Your task to perform on an android device: Open Reddit.com Image 0: 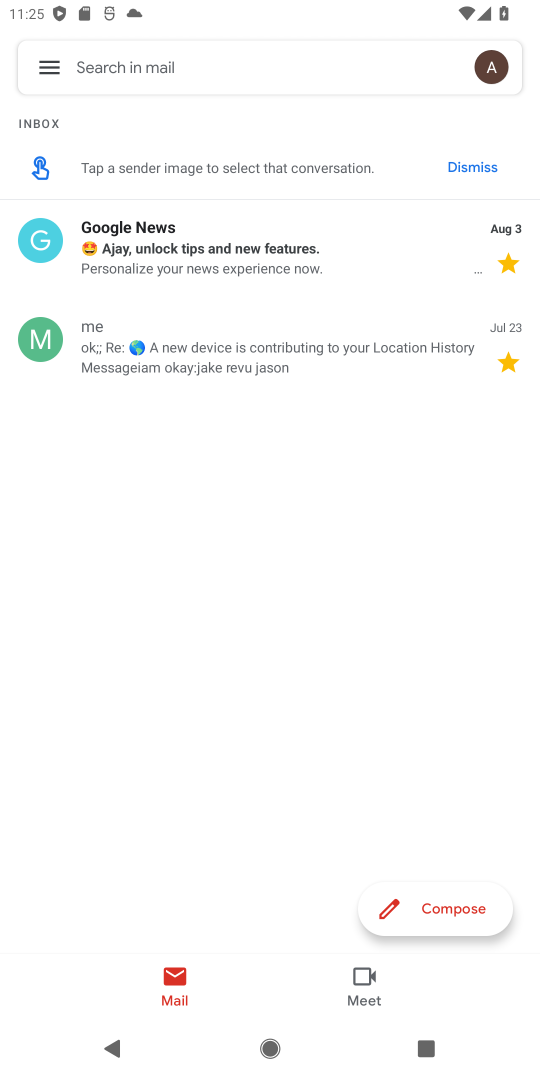
Step 0: press home button
Your task to perform on an android device: Open Reddit.com Image 1: 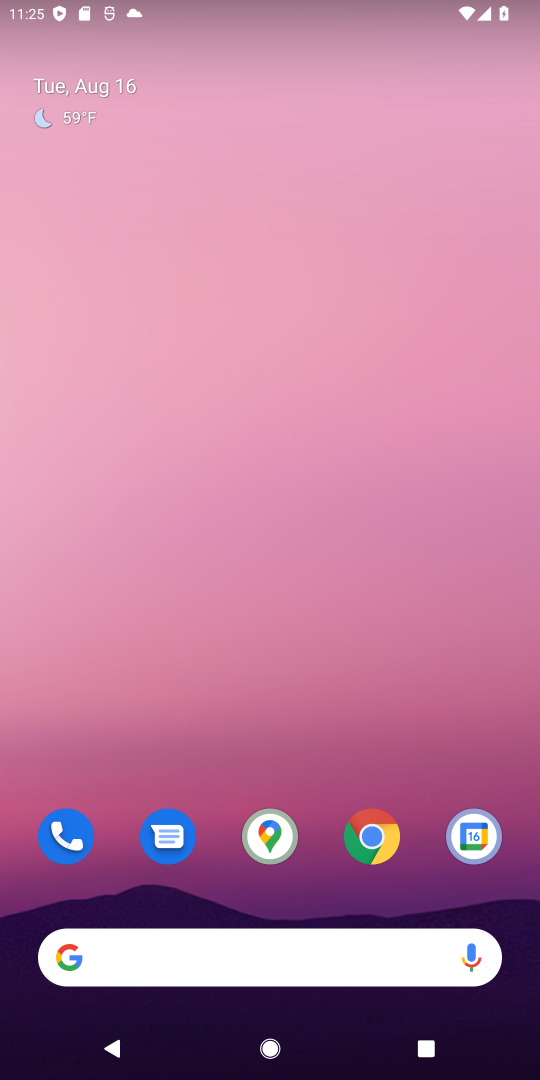
Step 1: click (372, 842)
Your task to perform on an android device: Open Reddit.com Image 2: 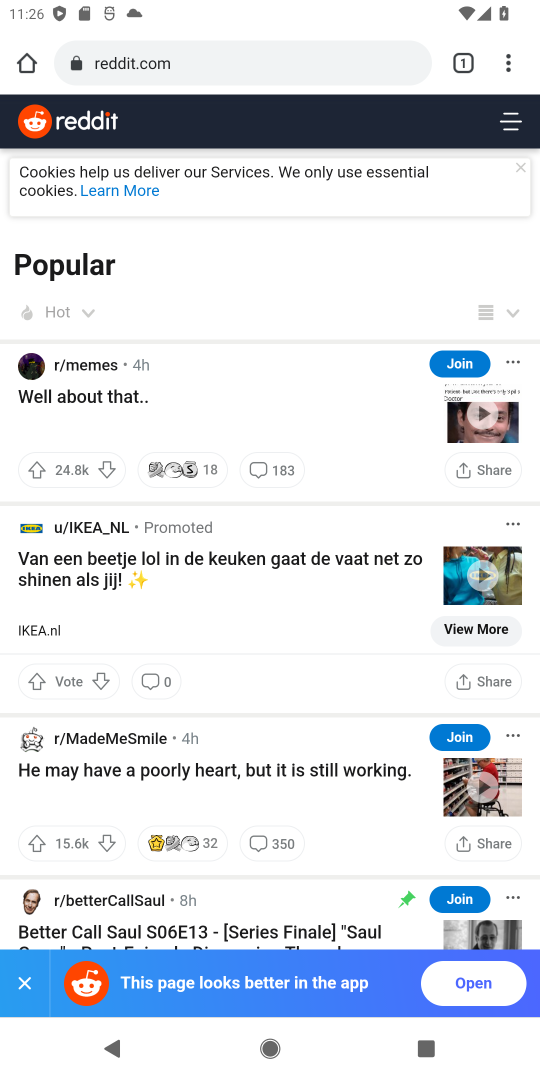
Step 2: click (291, 71)
Your task to perform on an android device: Open Reddit.com Image 3: 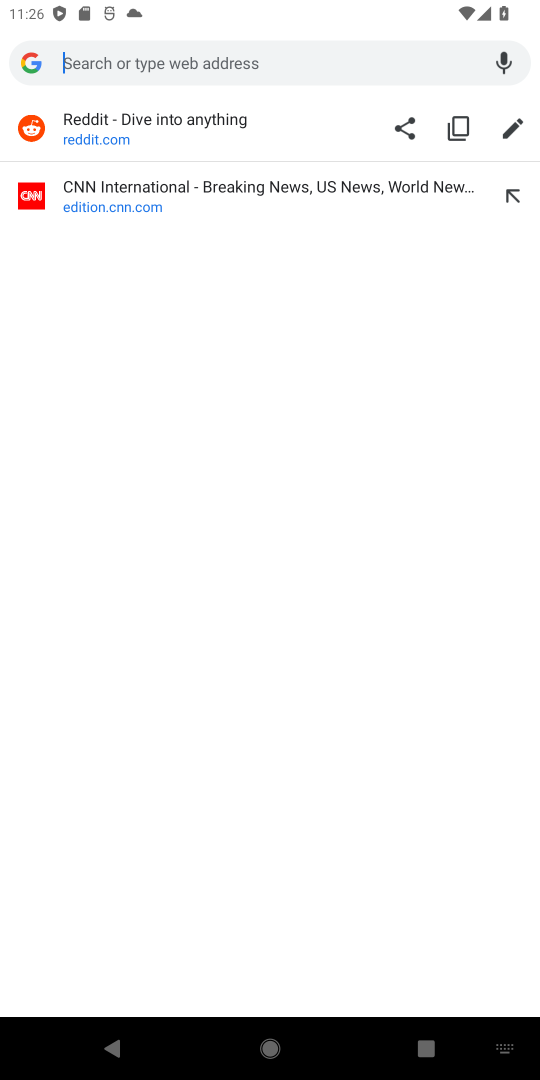
Step 3: click (243, 124)
Your task to perform on an android device: Open Reddit.com Image 4: 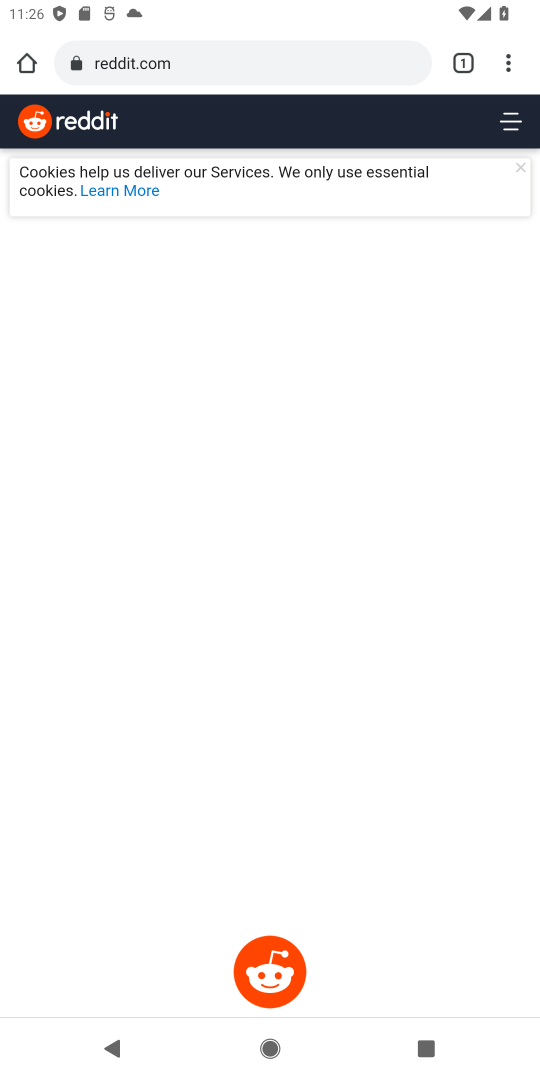
Step 4: task complete